Your task to perform on an android device: create a new album in the google photos Image 0: 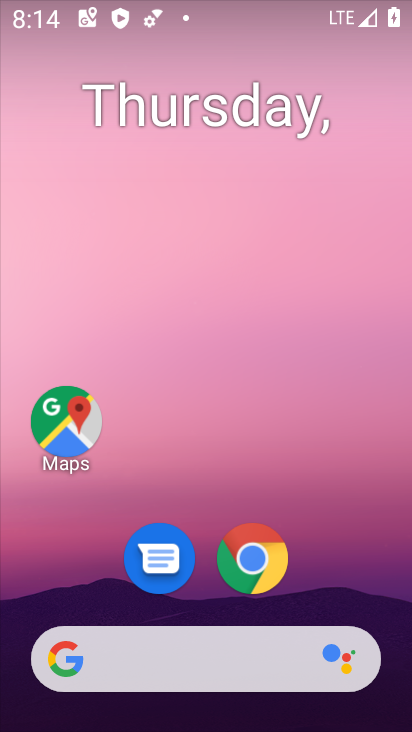
Step 0: drag from (166, 617) to (232, 164)
Your task to perform on an android device: create a new album in the google photos Image 1: 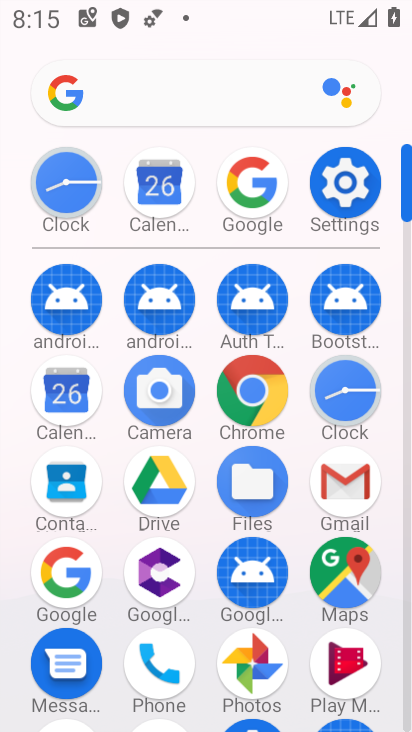
Step 1: click (254, 666)
Your task to perform on an android device: create a new album in the google photos Image 2: 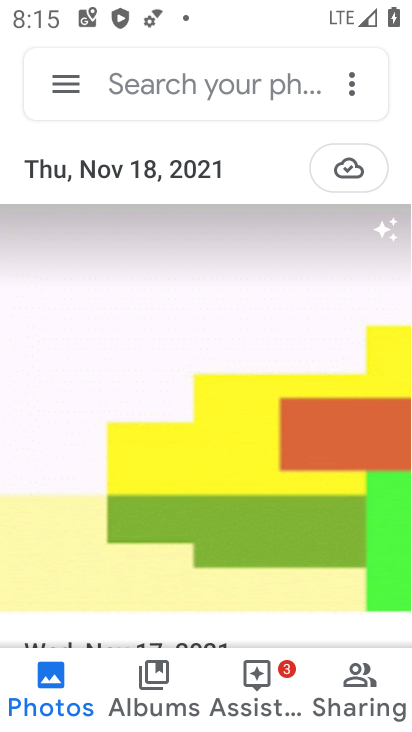
Step 2: press back button
Your task to perform on an android device: create a new album in the google photos Image 3: 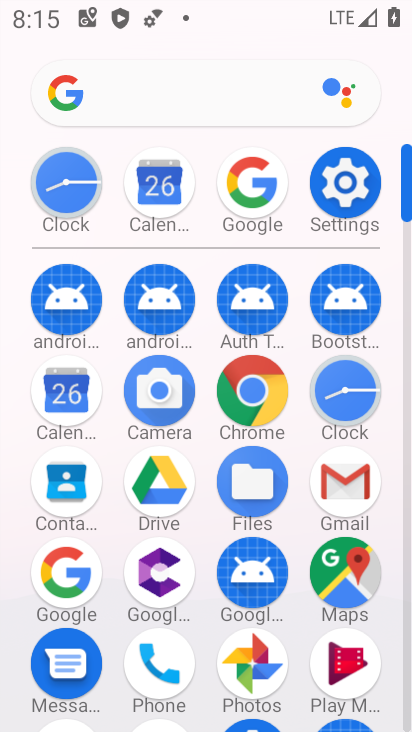
Step 3: click (254, 664)
Your task to perform on an android device: create a new album in the google photos Image 4: 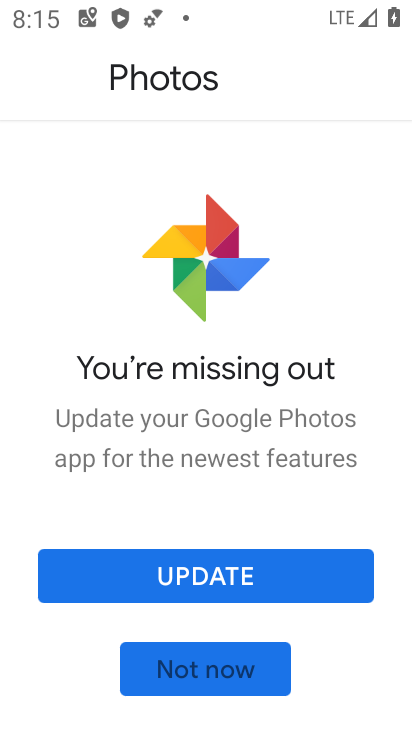
Step 4: click (163, 584)
Your task to perform on an android device: create a new album in the google photos Image 5: 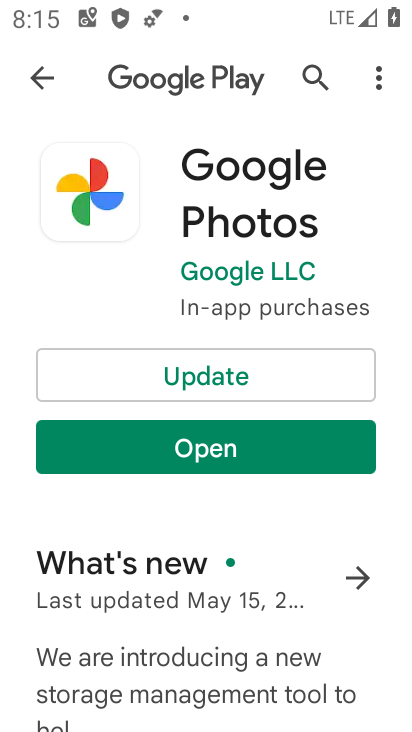
Step 5: click (256, 380)
Your task to perform on an android device: create a new album in the google photos Image 6: 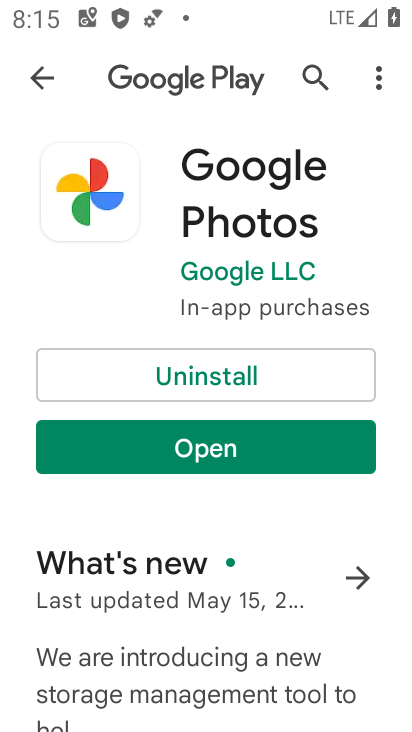
Step 6: click (220, 452)
Your task to perform on an android device: create a new album in the google photos Image 7: 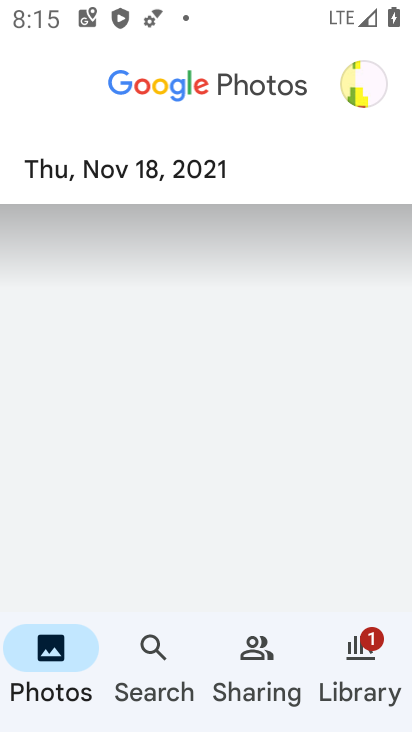
Step 7: click (154, 680)
Your task to perform on an android device: create a new album in the google photos Image 8: 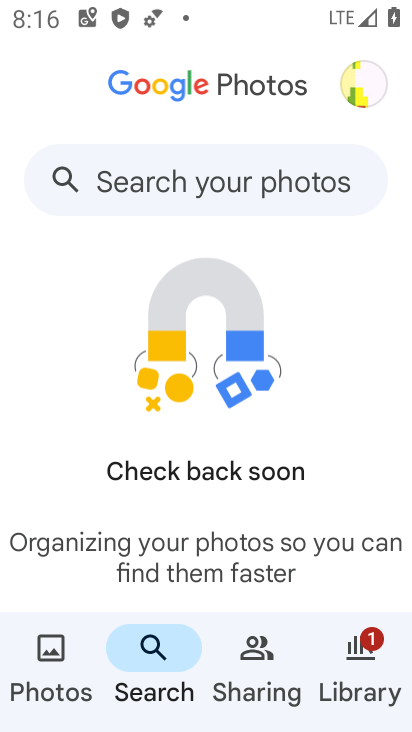
Step 8: click (255, 669)
Your task to perform on an android device: create a new album in the google photos Image 9: 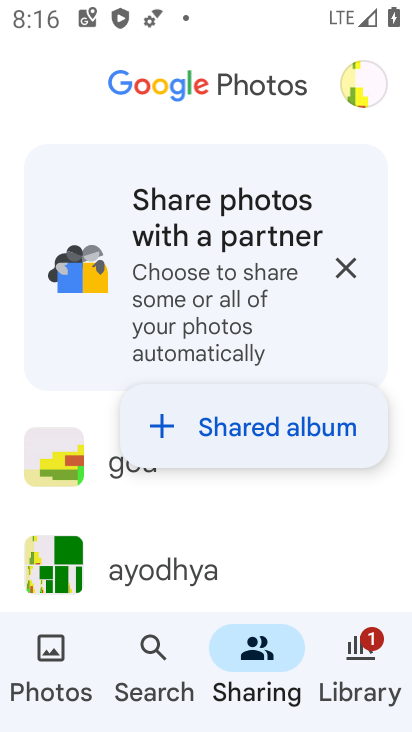
Step 9: click (351, 659)
Your task to perform on an android device: create a new album in the google photos Image 10: 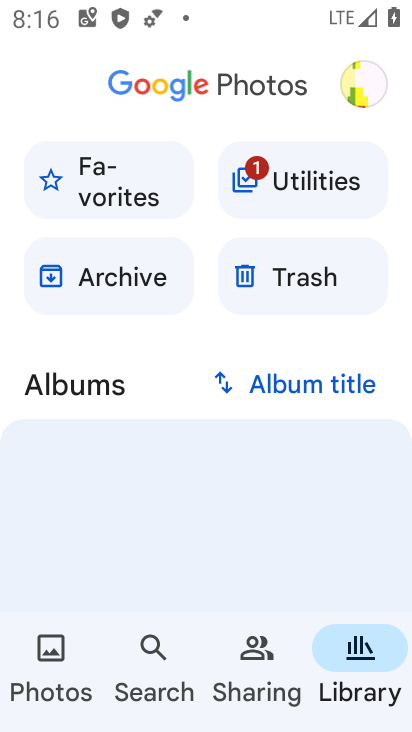
Step 10: click (321, 385)
Your task to perform on an android device: create a new album in the google photos Image 11: 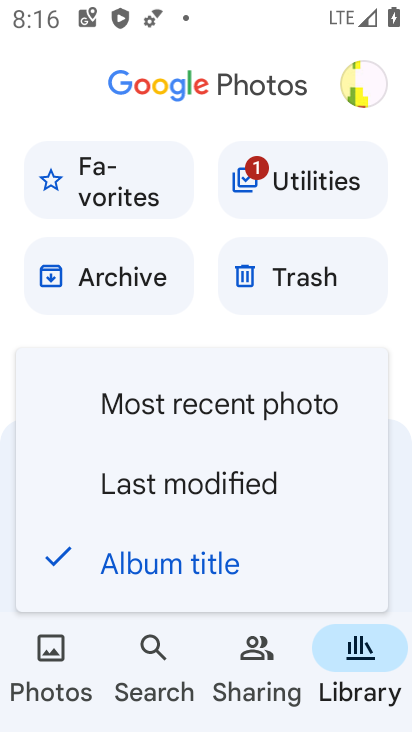
Step 11: click (388, 315)
Your task to perform on an android device: create a new album in the google photos Image 12: 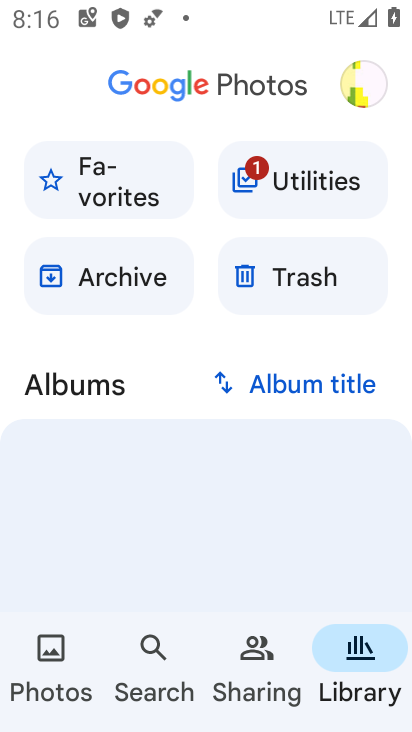
Step 12: click (190, 537)
Your task to perform on an android device: create a new album in the google photos Image 13: 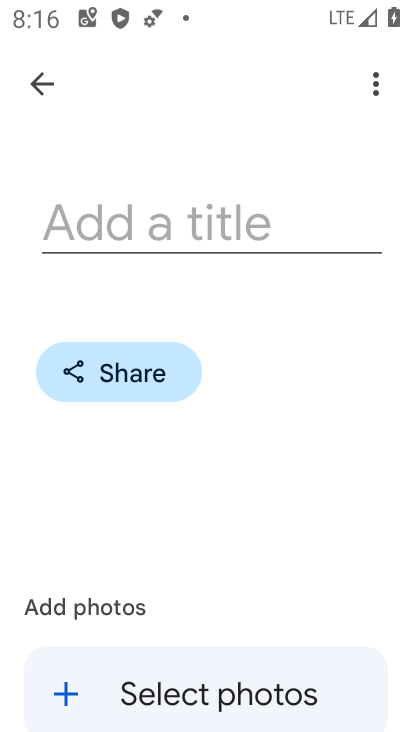
Step 13: click (143, 234)
Your task to perform on an android device: create a new album in the google photos Image 14: 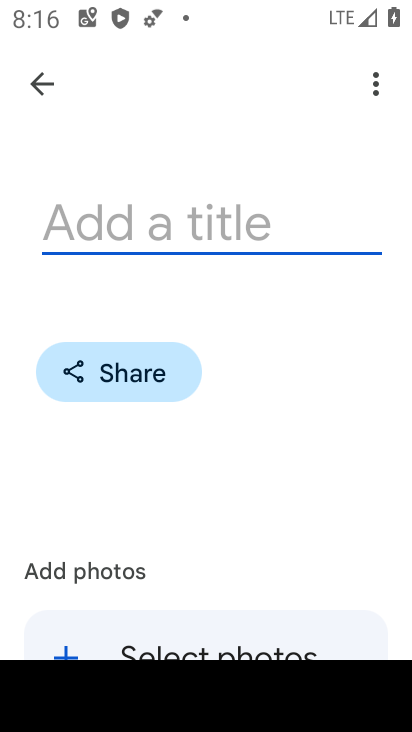
Step 14: type "Piku"
Your task to perform on an android device: create a new album in the google photos Image 15: 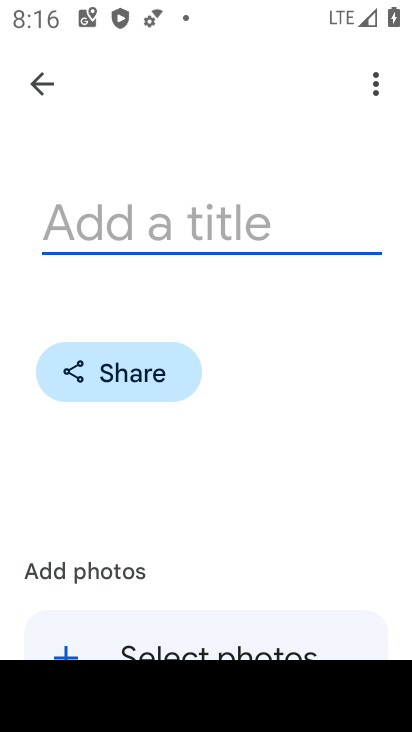
Step 15: click (169, 640)
Your task to perform on an android device: create a new album in the google photos Image 16: 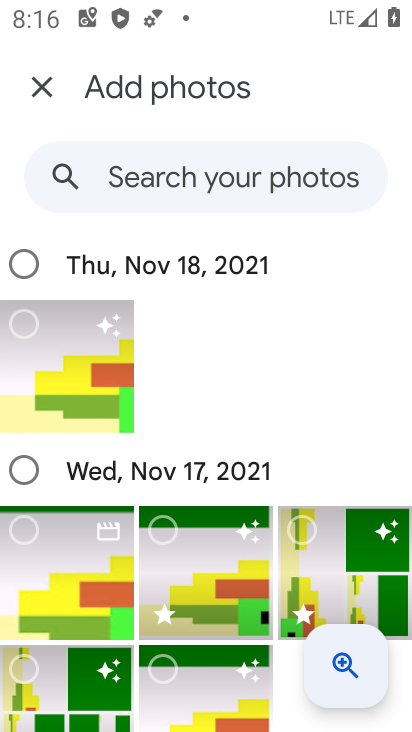
Step 16: click (27, 267)
Your task to perform on an android device: create a new album in the google photos Image 17: 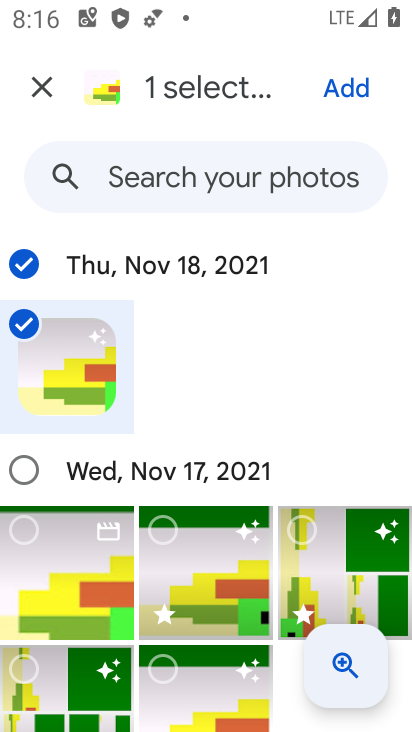
Step 17: click (26, 476)
Your task to perform on an android device: create a new album in the google photos Image 18: 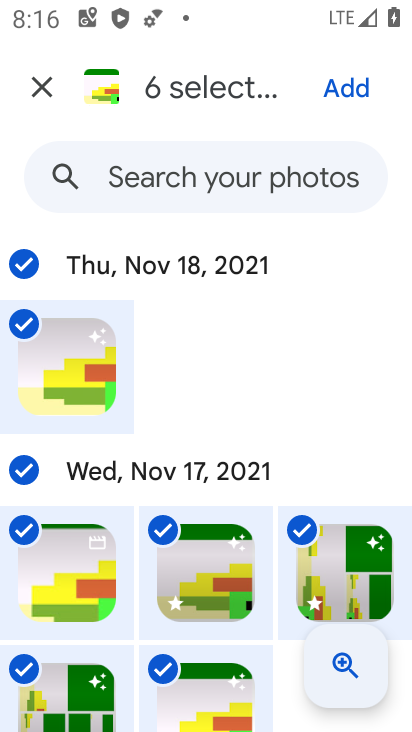
Step 18: click (350, 91)
Your task to perform on an android device: create a new album in the google photos Image 19: 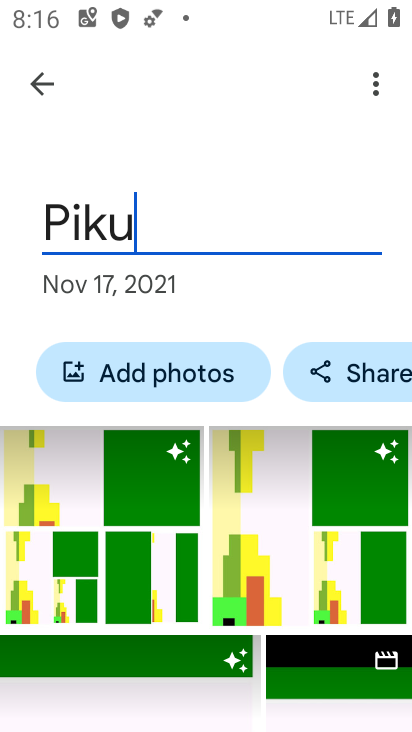
Step 19: click (409, 621)
Your task to perform on an android device: create a new album in the google photos Image 20: 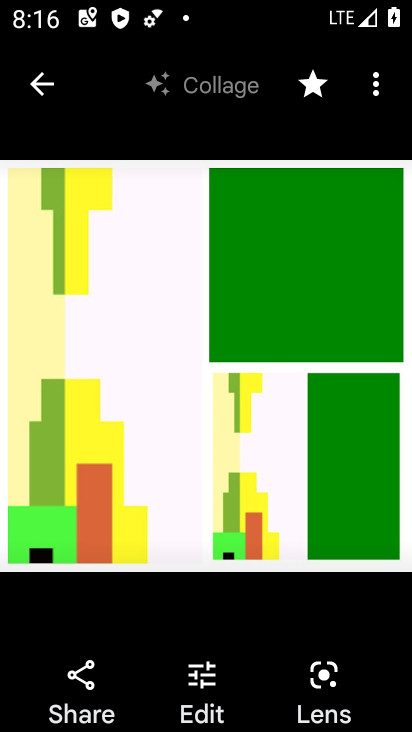
Step 20: task complete